Your task to perform on an android device: check out phone information Image 0: 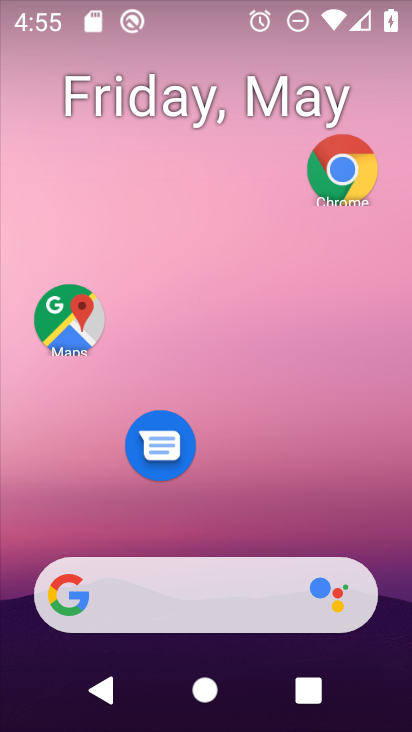
Step 0: drag from (245, 517) to (216, 10)
Your task to perform on an android device: check out phone information Image 1: 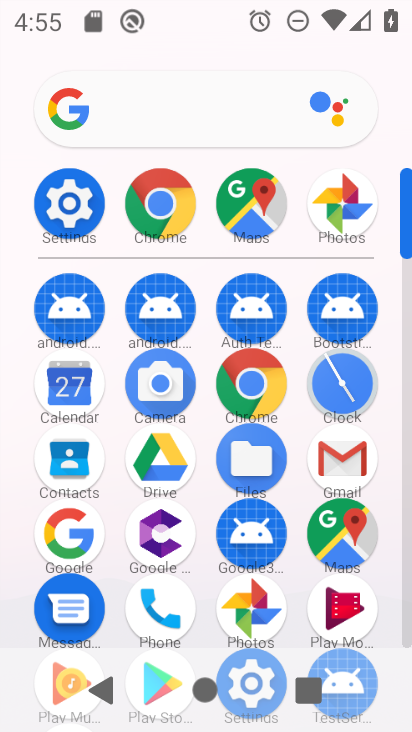
Step 1: click (74, 212)
Your task to perform on an android device: check out phone information Image 2: 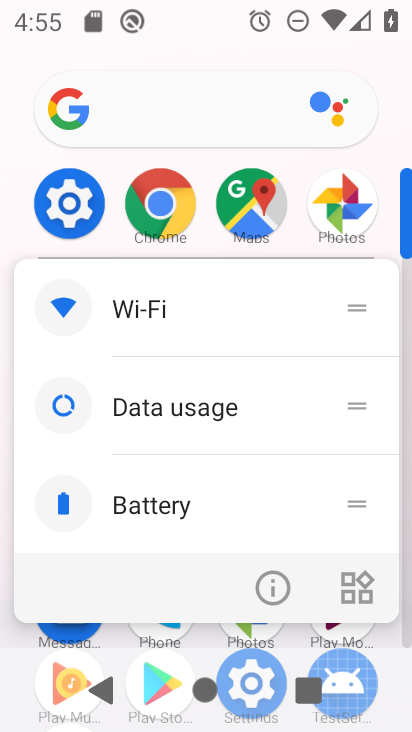
Step 2: click (70, 213)
Your task to perform on an android device: check out phone information Image 3: 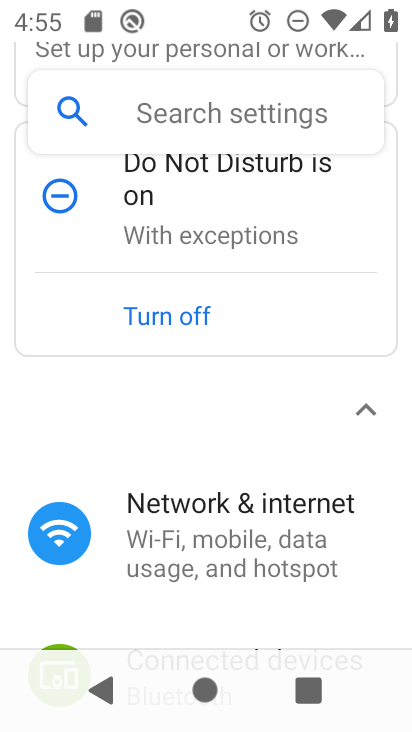
Step 3: drag from (234, 570) to (232, 183)
Your task to perform on an android device: check out phone information Image 4: 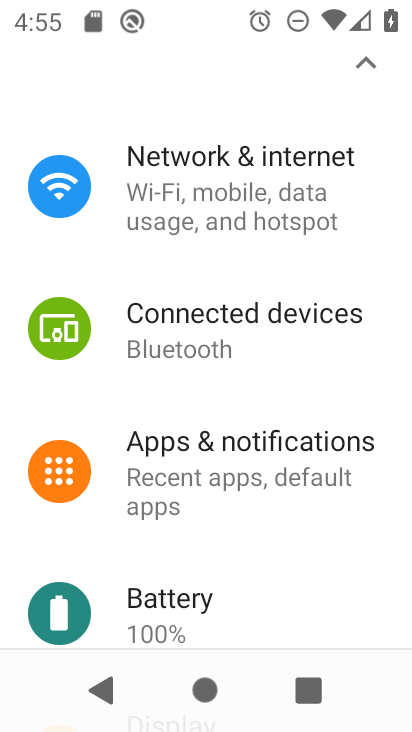
Step 4: drag from (238, 519) to (230, 132)
Your task to perform on an android device: check out phone information Image 5: 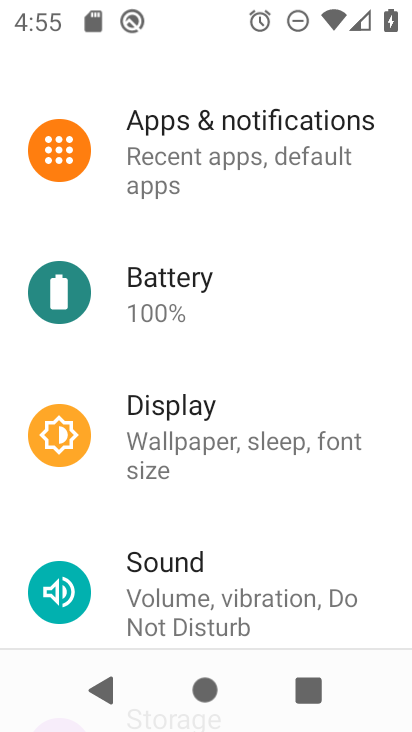
Step 5: drag from (241, 538) to (249, 105)
Your task to perform on an android device: check out phone information Image 6: 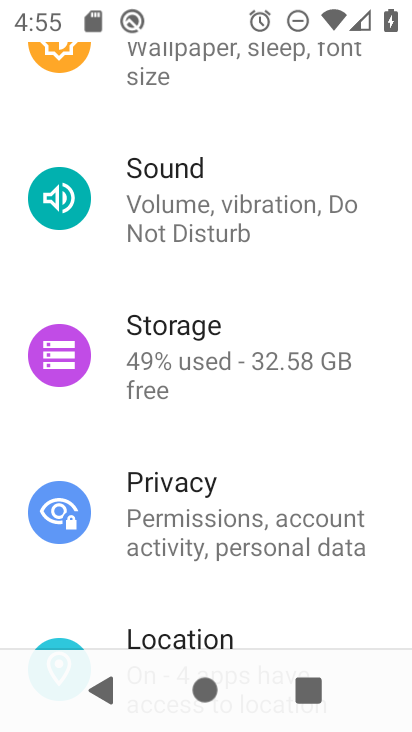
Step 6: drag from (253, 562) to (250, 137)
Your task to perform on an android device: check out phone information Image 7: 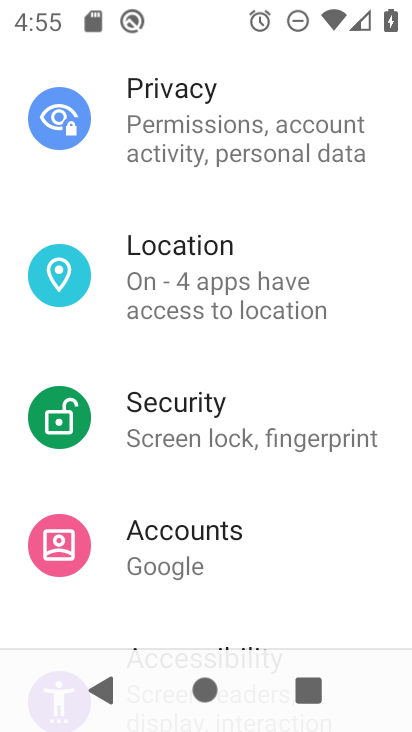
Step 7: drag from (228, 531) to (246, 1)
Your task to perform on an android device: check out phone information Image 8: 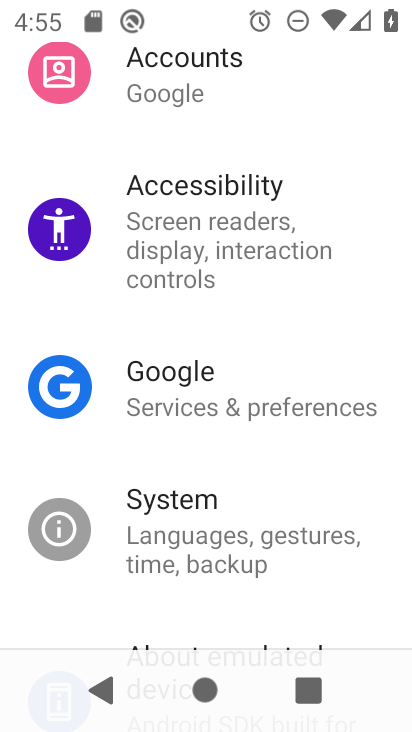
Step 8: drag from (215, 494) to (209, 98)
Your task to perform on an android device: check out phone information Image 9: 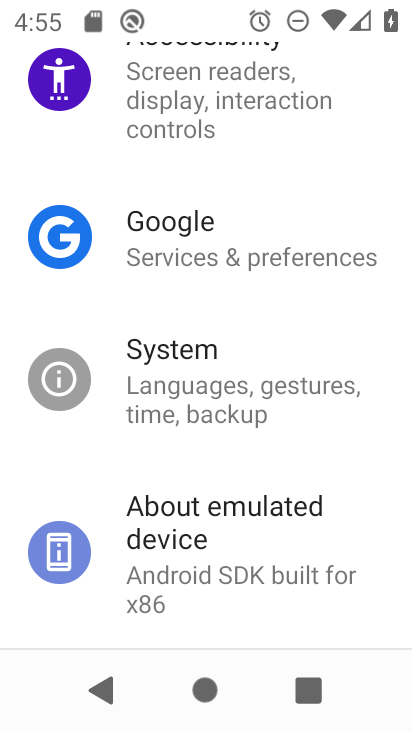
Step 9: click (182, 591)
Your task to perform on an android device: check out phone information Image 10: 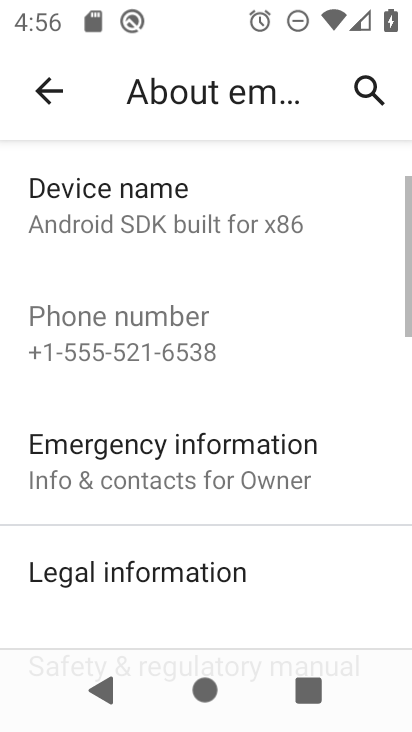
Step 10: task complete